Your task to perform on an android device: Open Google Chrome and open the bookmarks view Image 0: 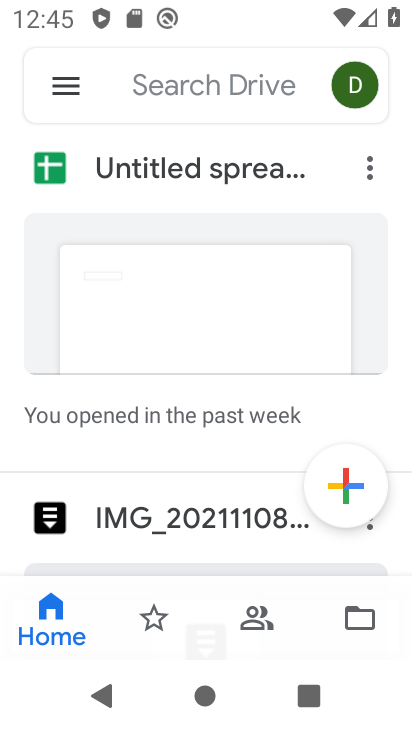
Step 0: press home button
Your task to perform on an android device: Open Google Chrome and open the bookmarks view Image 1: 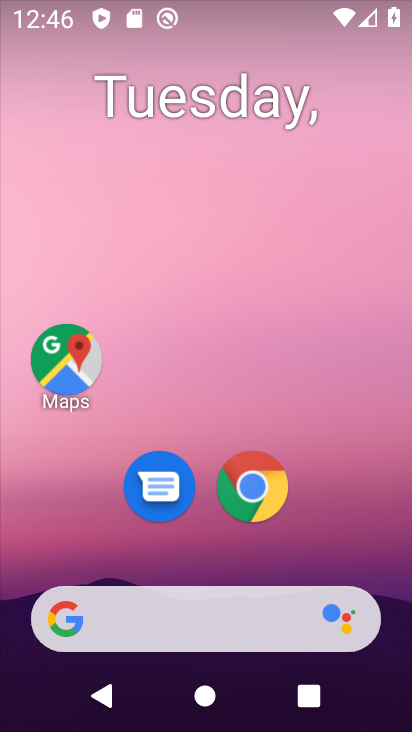
Step 1: click (259, 498)
Your task to perform on an android device: Open Google Chrome and open the bookmarks view Image 2: 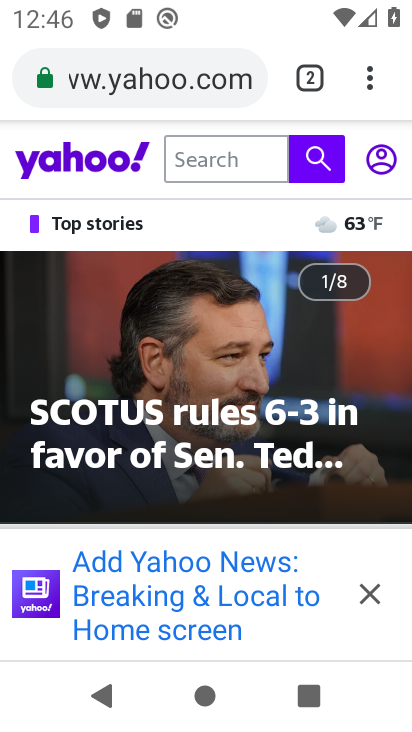
Step 2: click (372, 75)
Your task to perform on an android device: Open Google Chrome and open the bookmarks view Image 3: 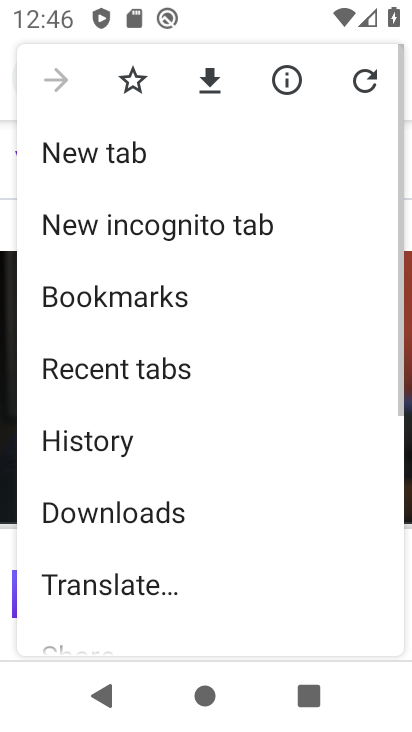
Step 3: click (210, 301)
Your task to perform on an android device: Open Google Chrome and open the bookmarks view Image 4: 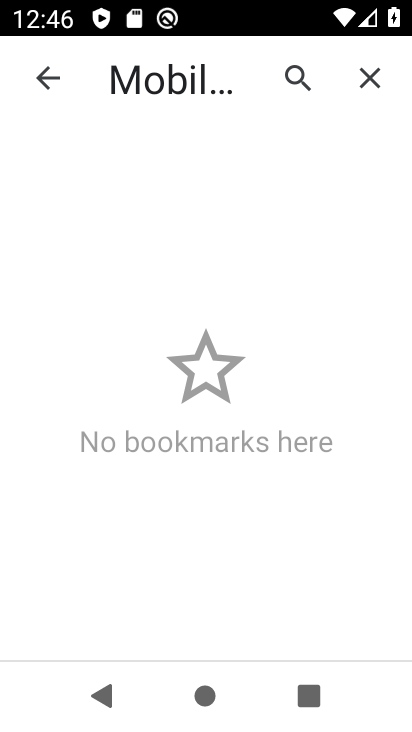
Step 4: task complete